Your task to perform on an android device: Open Google Maps and go to "Timeline" Image 0: 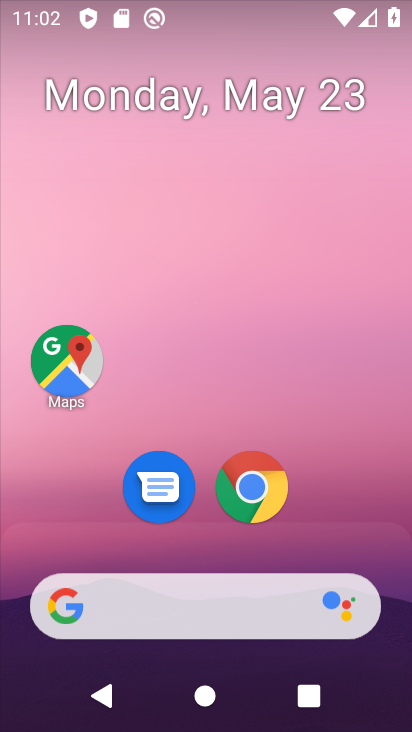
Step 0: click (91, 373)
Your task to perform on an android device: Open Google Maps and go to "Timeline" Image 1: 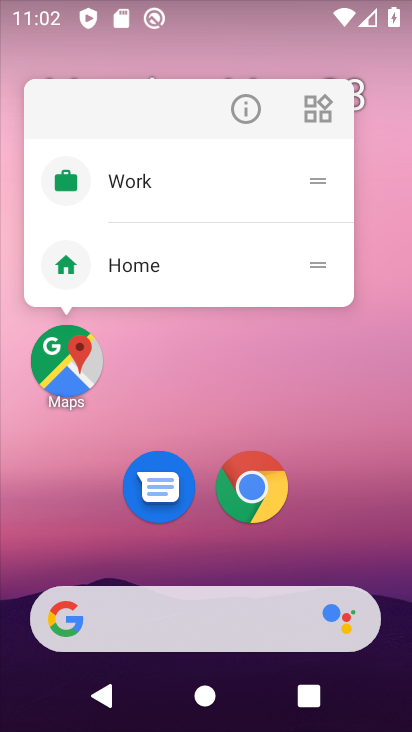
Step 1: click (88, 387)
Your task to perform on an android device: Open Google Maps and go to "Timeline" Image 2: 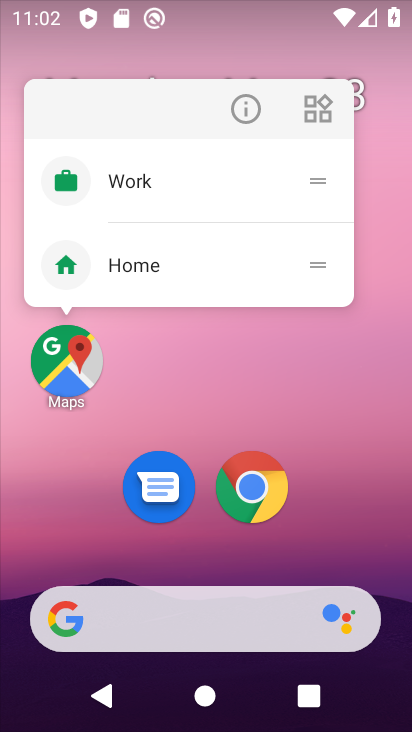
Step 2: click (88, 374)
Your task to perform on an android device: Open Google Maps and go to "Timeline" Image 3: 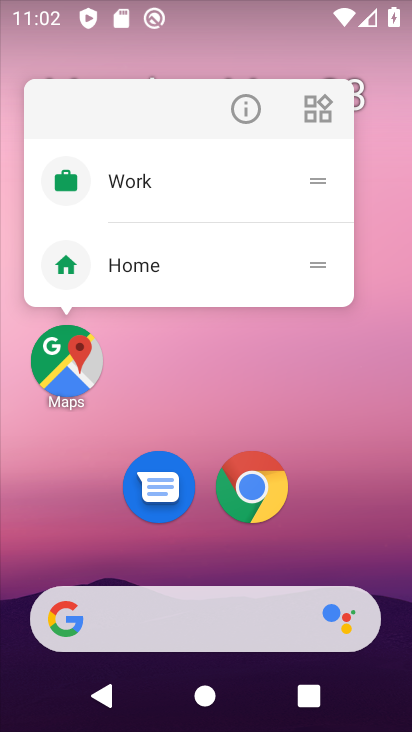
Step 3: click (82, 357)
Your task to perform on an android device: Open Google Maps and go to "Timeline" Image 4: 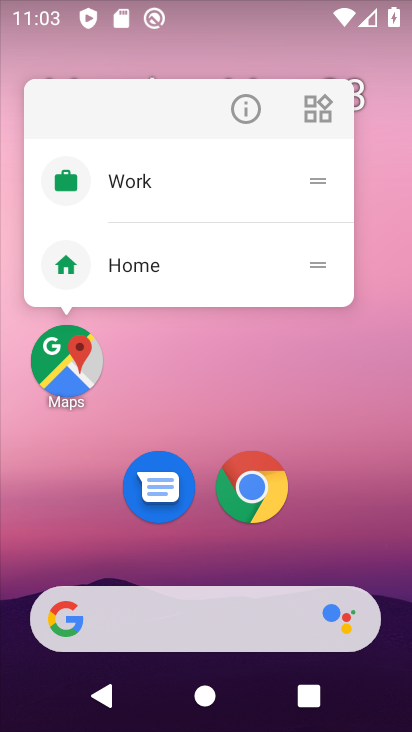
Step 4: click (62, 371)
Your task to perform on an android device: Open Google Maps and go to "Timeline" Image 5: 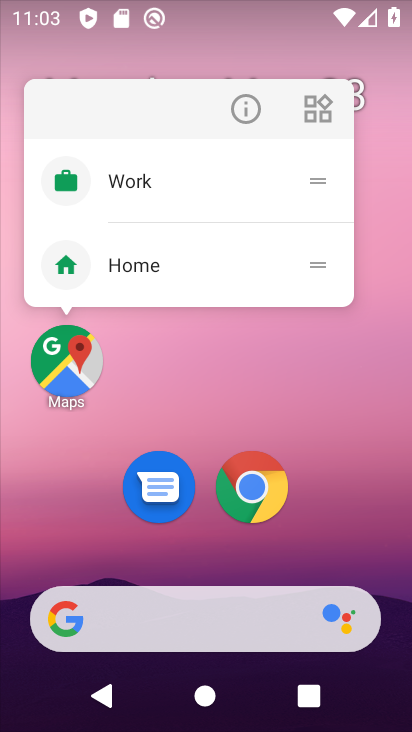
Step 5: click (62, 373)
Your task to perform on an android device: Open Google Maps and go to "Timeline" Image 6: 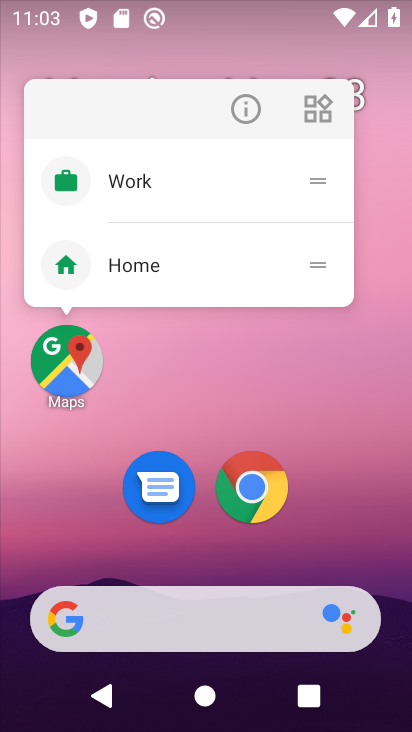
Step 6: click (62, 373)
Your task to perform on an android device: Open Google Maps and go to "Timeline" Image 7: 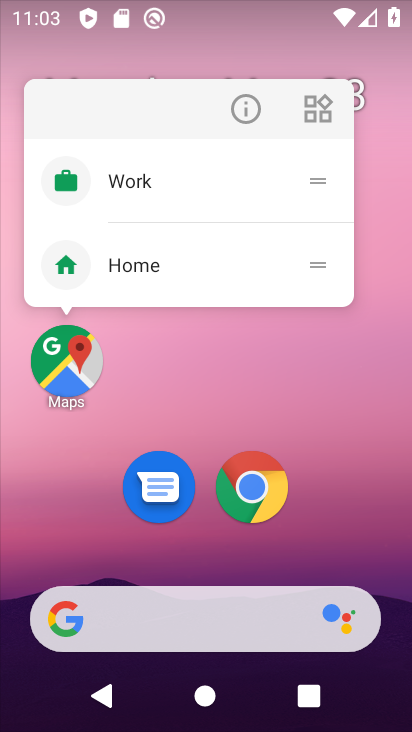
Step 7: click (89, 374)
Your task to perform on an android device: Open Google Maps and go to "Timeline" Image 8: 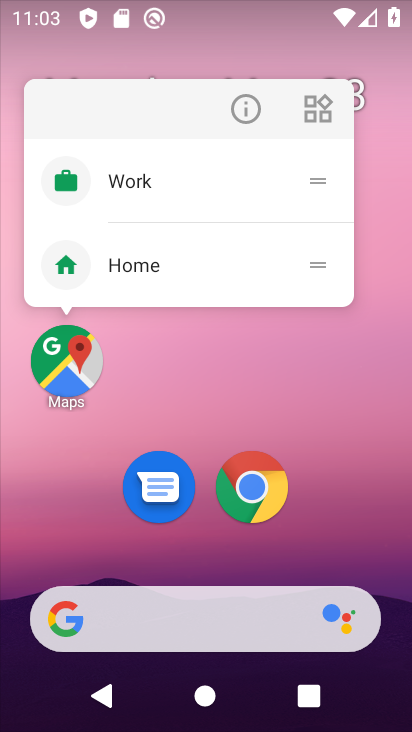
Step 8: click (54, 366)
Your task to perform on an android device: Open Google Maps and go to "Timeline" Image 9: 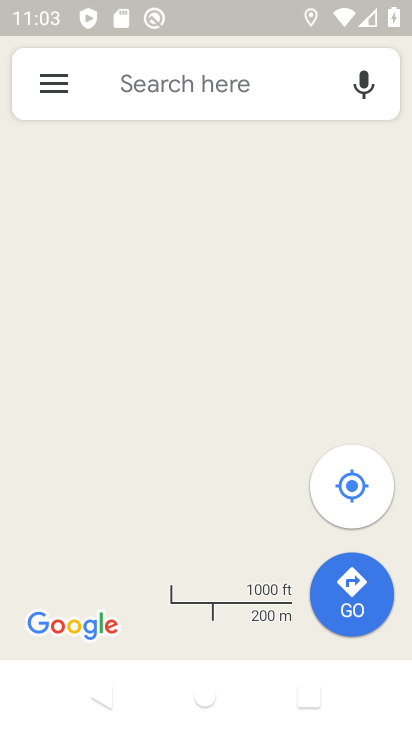
Step 9: click (66, 85)
Your task to perform on an android device: Open Google Maps and go to "Timeline" Image 10: 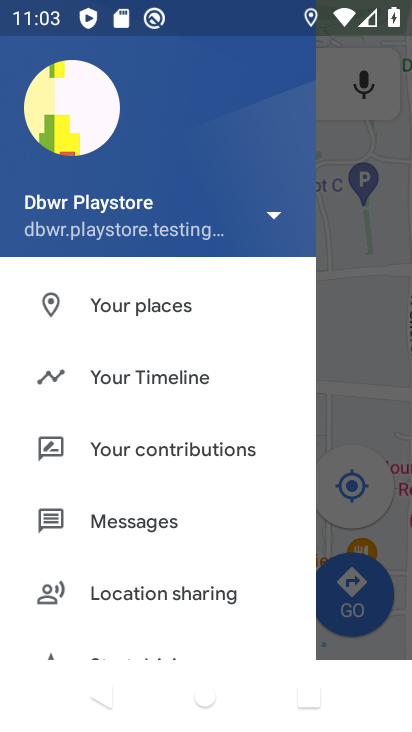
Step 10: click (171, 369)
Your task to perform on an android device: Open Google Maps and go to "Timeline" Image 11: 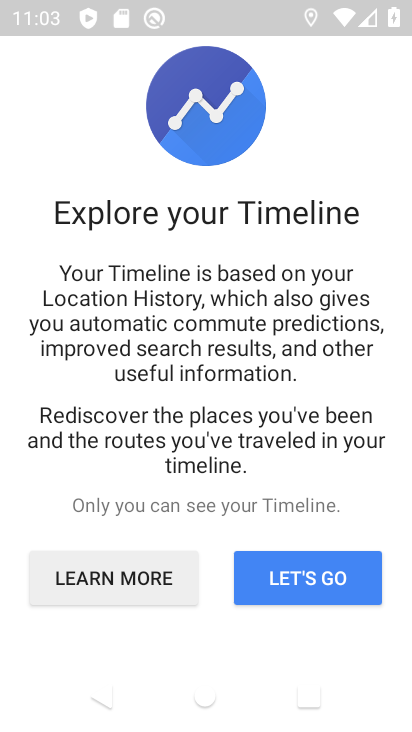
Step 11: click (280, 581)
Your task to perform on an android device: Open Google Maps and go to "Timeline" Image 12: 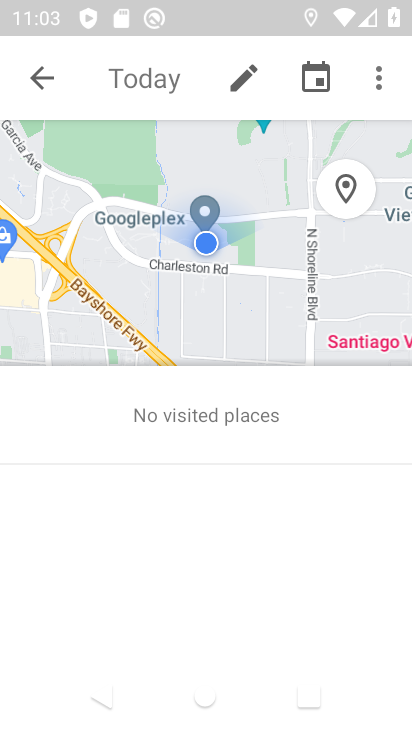
Step 12: task complete